Your task to perform on an android device: Open Yahoo.com Image 0: 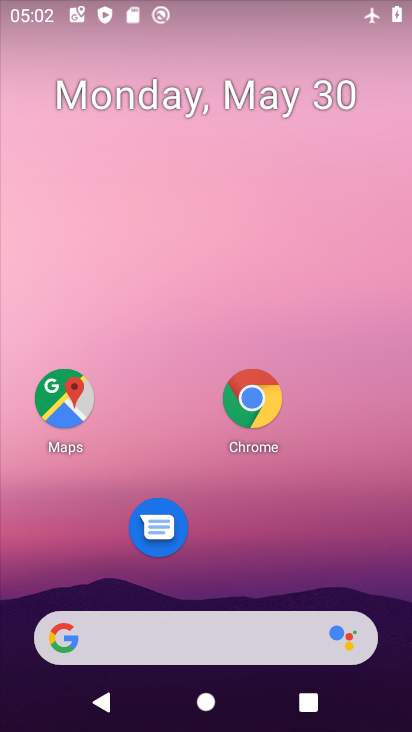
Step 0: click (257, 404)
Your task to perform on an android device: Open Yahoo.com Image 1: 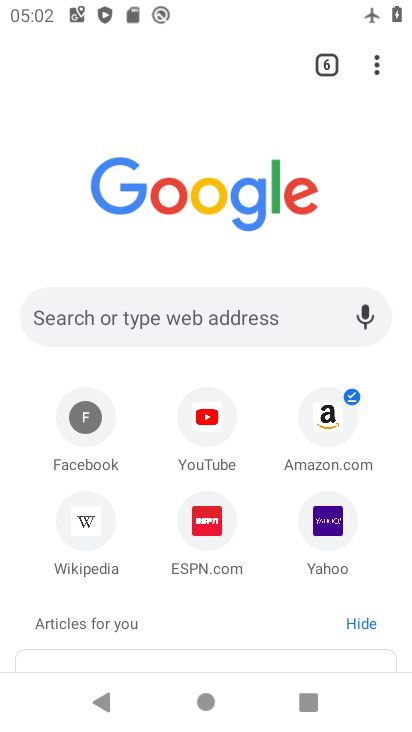
Step 1: click (322, 522)
Your task to perform on an android device: Open Yahoo.com Image 2: 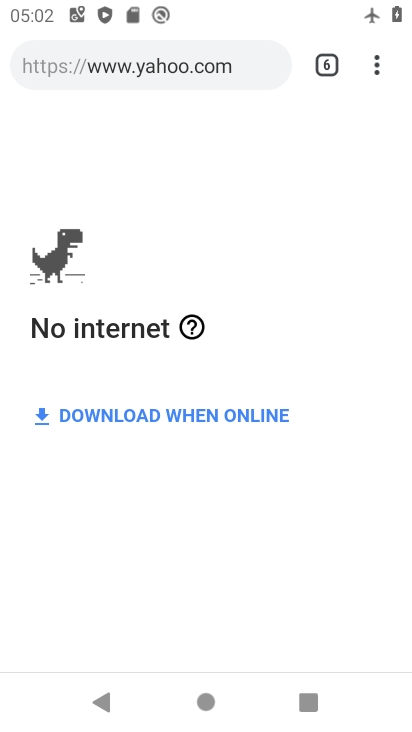
Step 2: task complete